Your task to perform on an android device: Open display settings Image 0: 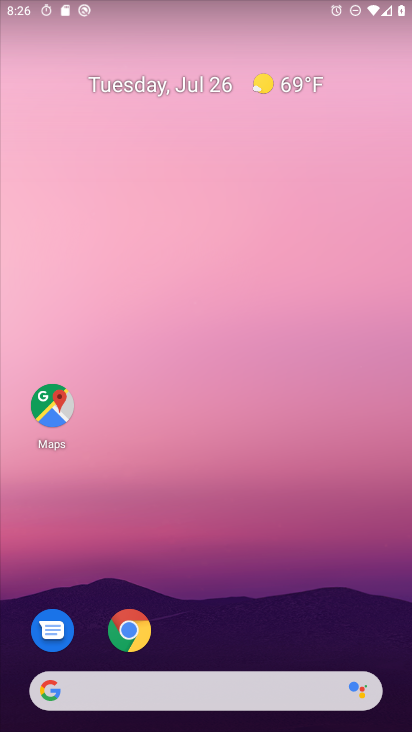
Step 0: drag from (202, 613) to (266, 83)
Your task to perform on an android device: Open display settings Image 1: 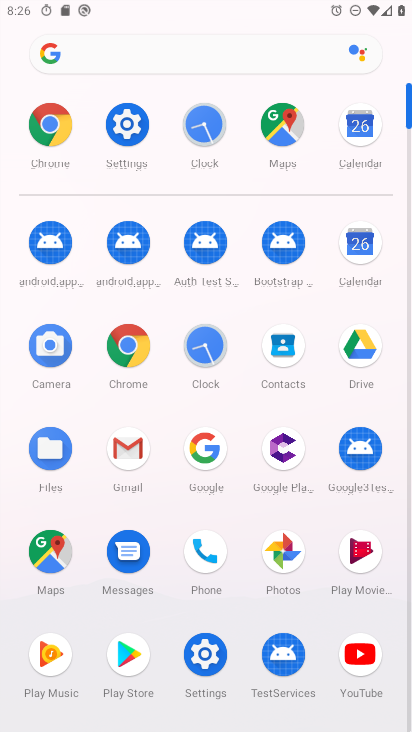
Step 1: click (208, 641)
Your task to perform on an android device: Open display settings Image 2: 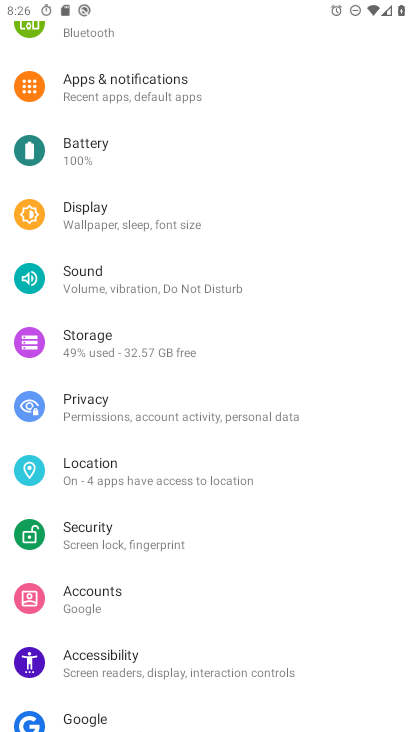
Step 2: click (150, 214)
Your task to perform on an android device: Open display settings Image 3: 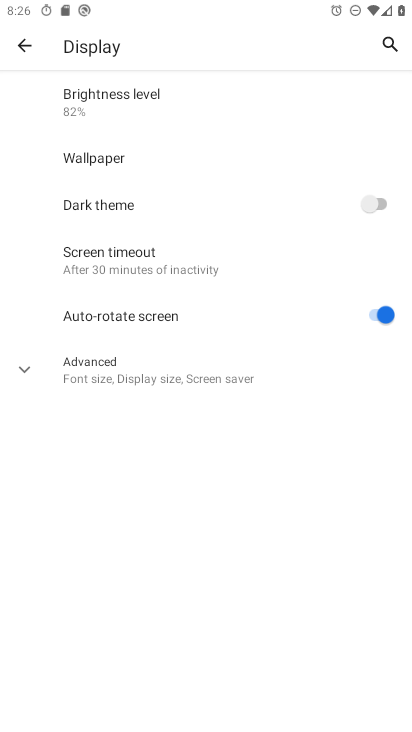
Step 3: task complete